Your task to perform on an android device: check data usage Image 0: 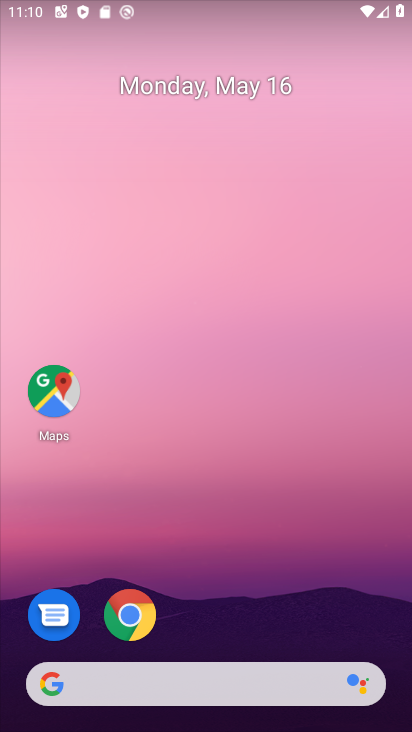
Step 0: drag from (196, 717) to (200, 276)
Your task to perform on an android device: check data usage Image 1: 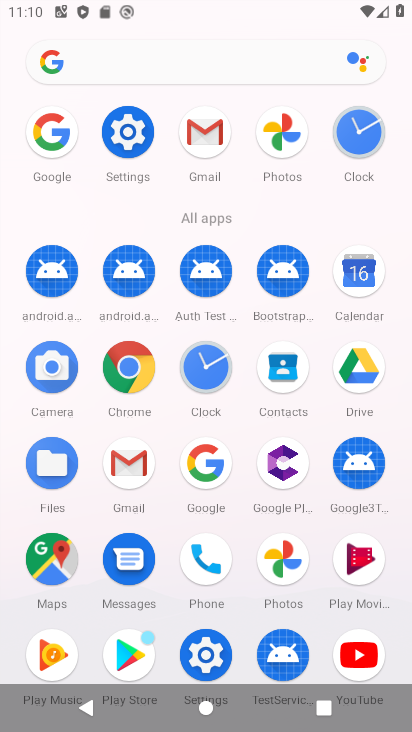
Step 1: click (130, 135)
Your task to perform on an android device: check data usage Image 2: 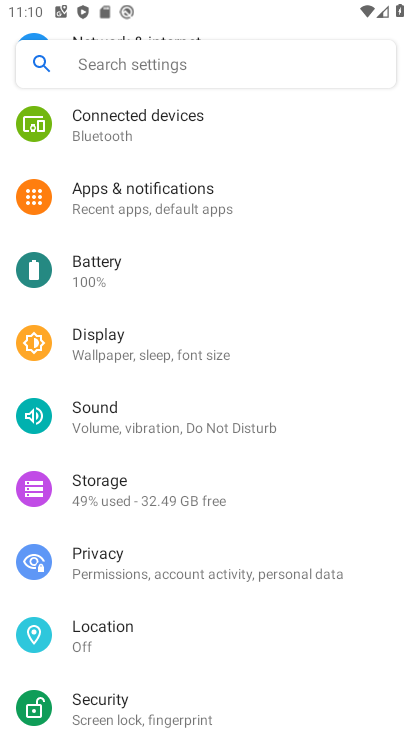
Step 2: drag from (154, 158) to (165, 582)
Your task to perform on an android device: check data usage Image 3: 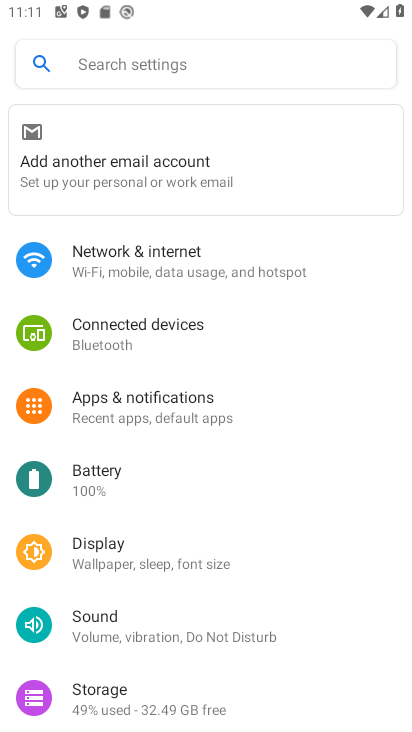
Step 3: click (138, 270)
Your task to perform on an android device: check data usage Image 4: 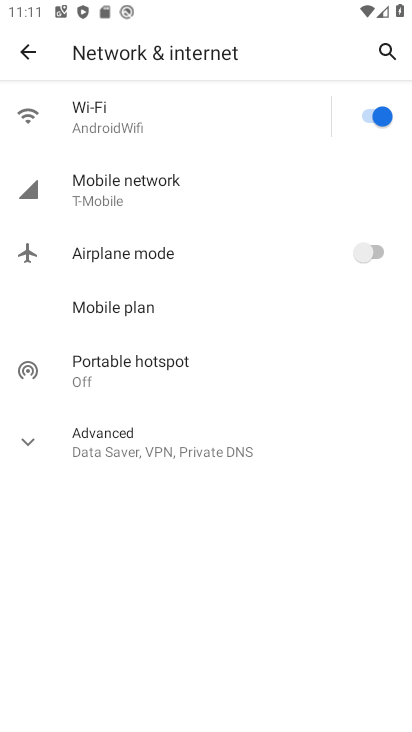
Step 4: click (117, 189)
Your task to perform on an android device: check data usage Image 5: 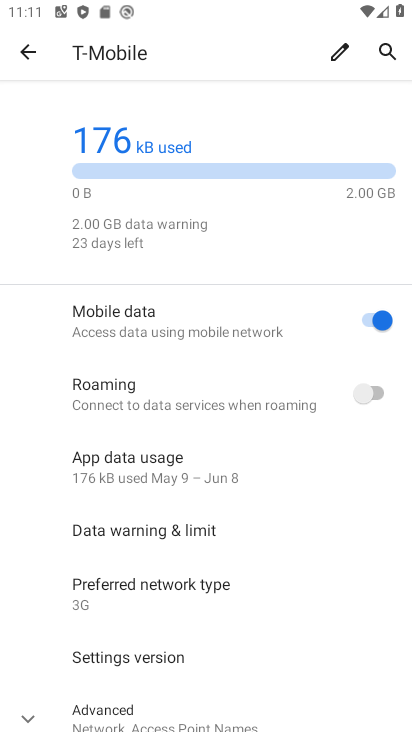
Step 5: click (130, 468)
Your task to perform on an android device: check data usage Image 6: 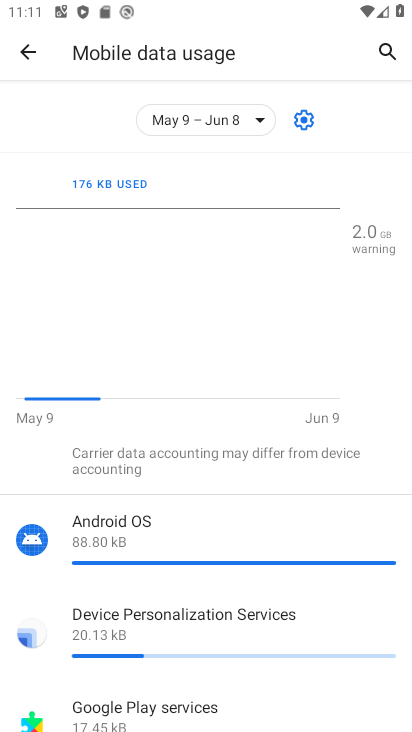
Step 6: task complete